Your task to perform on an android device: Open Yahoo.com Image 0: 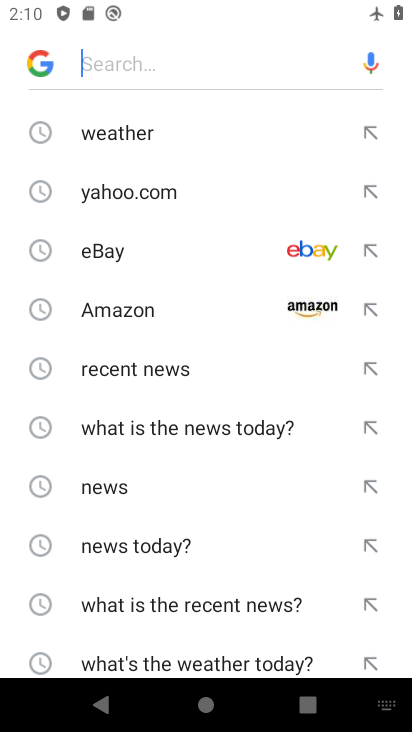
Step 0: click (121, 208)
Your task to perform on an android device: Open Yahoo.com Image 1: 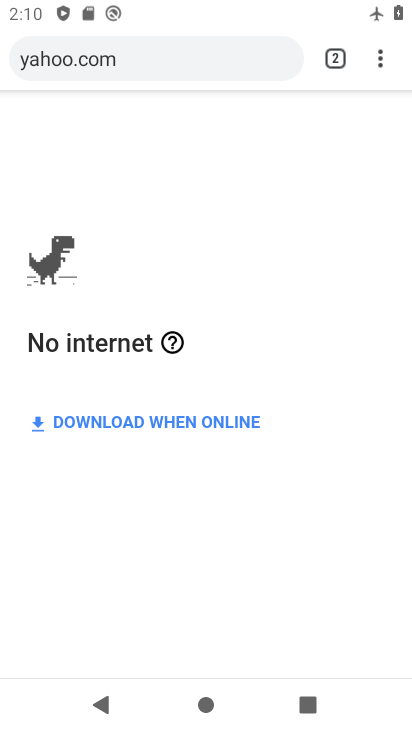
Step 1: drag from (245, 13) to (365, 597)
Your task to perform on an android device: Open Yahoo.com Image 2: 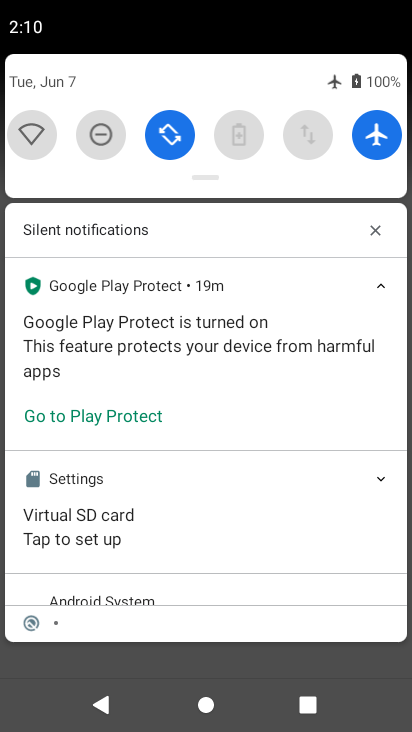
Step 2: click (361, 146)
Your task to perform on an android device: Open Yahoo.com Image 3: 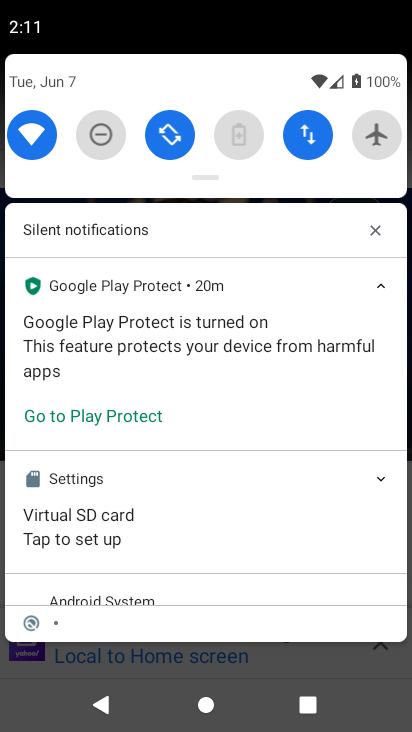
Step 3: click (130, 662)
Your task to perform on an android device: Open Yahoo.com Image 4: 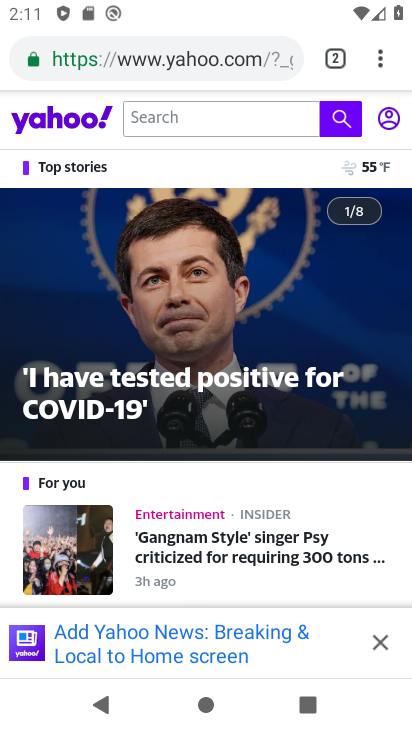
Step 4: task complete